Your task to perform on an android device: Open ESPN.com Image 0: 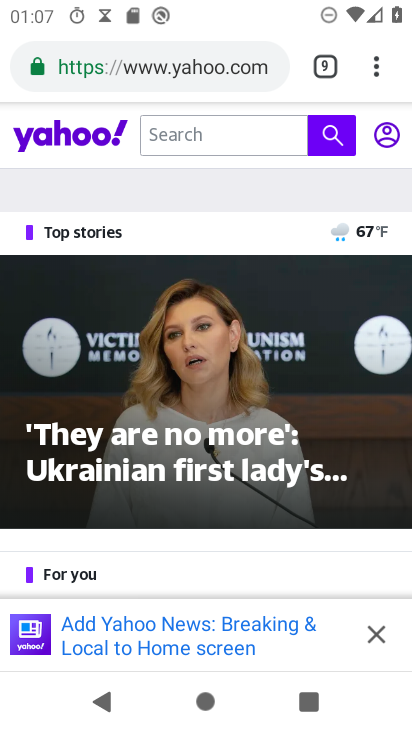
Step 0: press home button
Your task to perform on an android device: Open ESPN.com Image 1: 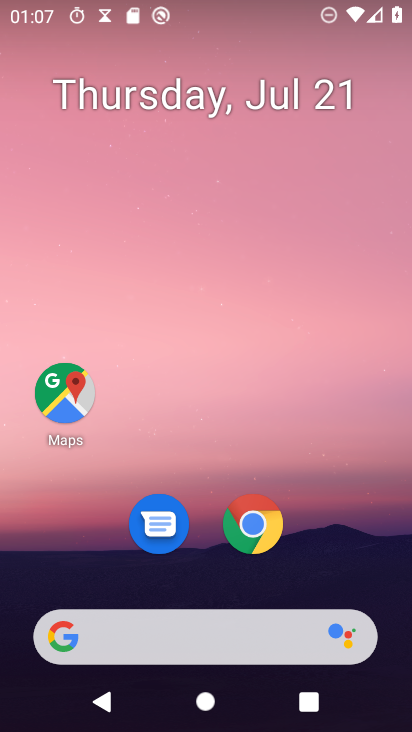
Step 1: click (253, 523)
Your task to perform on an android device: Open ESPN.com Image 2: 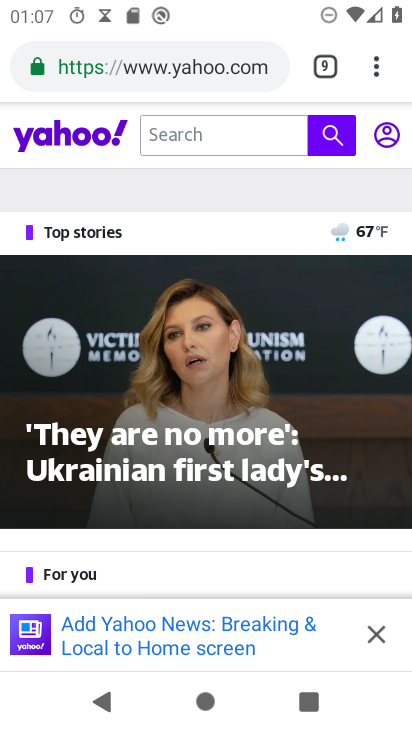
Step 2: drag from (375, 70) to (259, 124)
Your task to perform on an android device: Open ESPN.com Image 3: 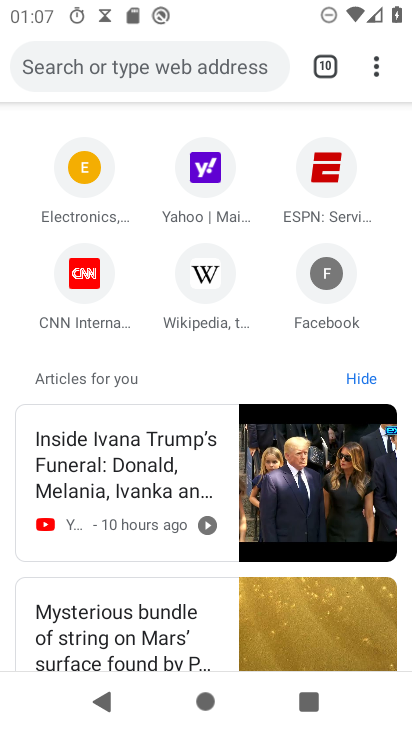
Step 3: click (323, 174)
Your task to perform on an android device: Open ESPN.com Image 4: 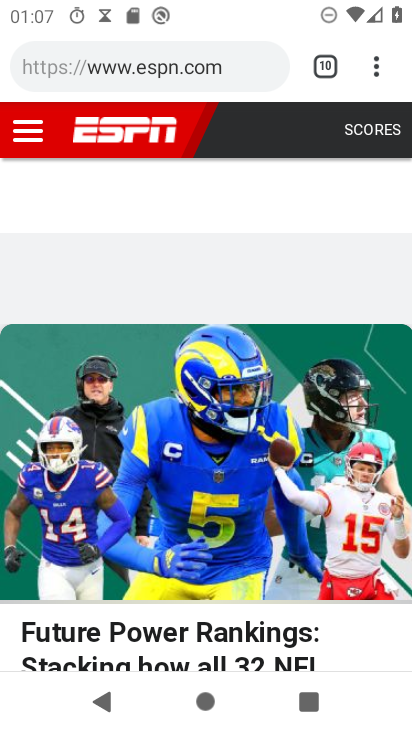
Step 4: task complete